Your task to perform on an android device: toggle show notifications on the lock screen Image 0: 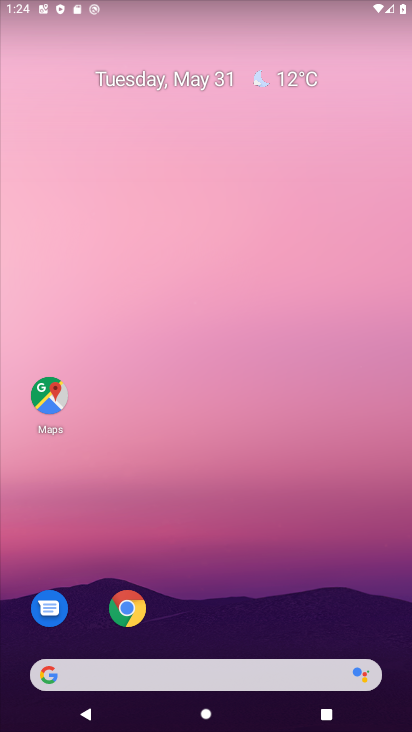
Step 0: drag from (306, 610) to (322, 200)
Your task to perform on an android device: toggle show notifications on the lock screen Image 1: 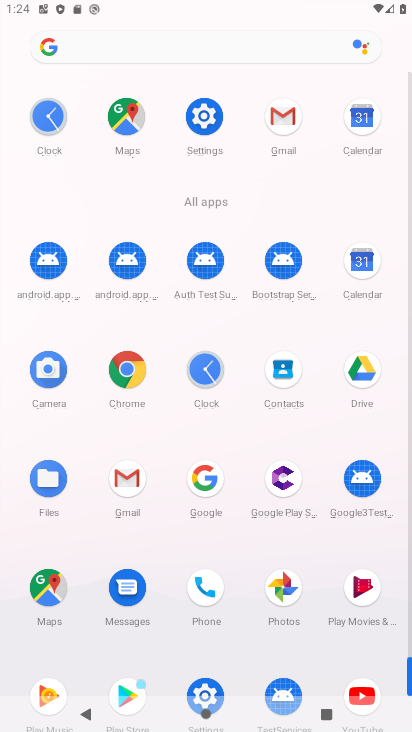
Step 1: click (220, 146)
Your task to perform on an android device: toggle show notifications on the lock screen Image 2: 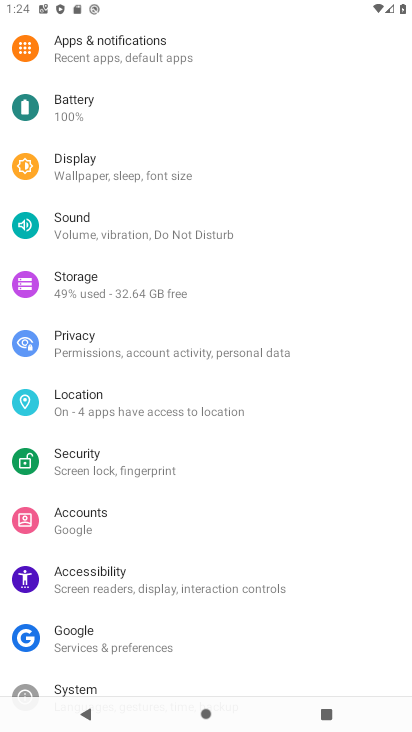
Step 2: click (206, 50)
Your task to perform on an android device: toggle show notifications on the lock screen Image 3: 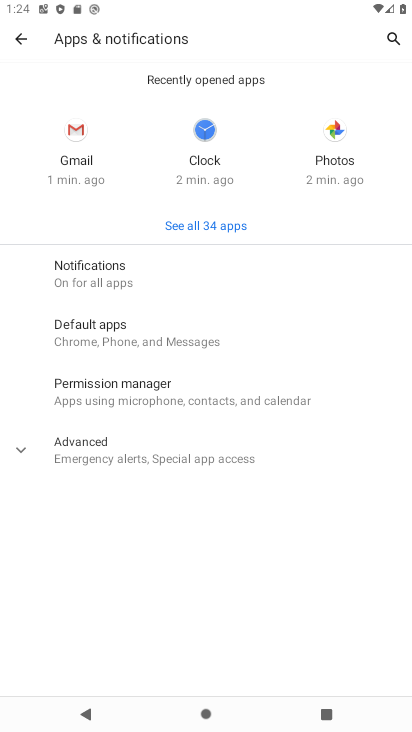
Step 3: click (67, 262)
Your task to perform on an android device: toggle show notifications on the lock screen Image 4: 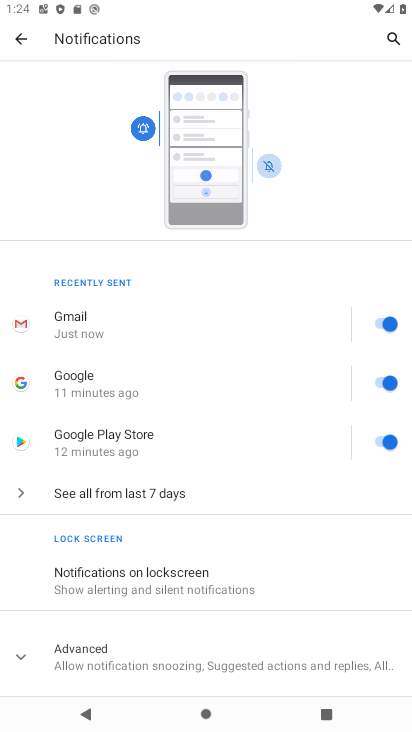
Step 4: click (186, 575)
Your task to perform on an android device: toggle show notifications on the lock screen Image 5: 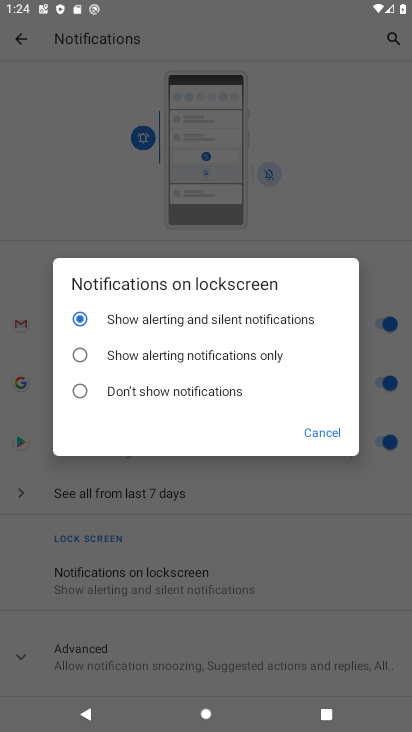
Step 5: click (169, 384)
Your task to perform on an android device: toggle show notifications on the lock screen Image 6: 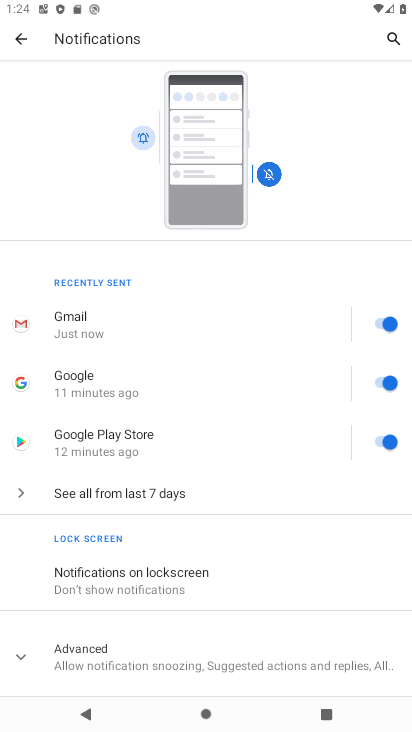
Step 6: task complete